Your task to perform on an android device: toggle show notifications on the lock screen Image 0: 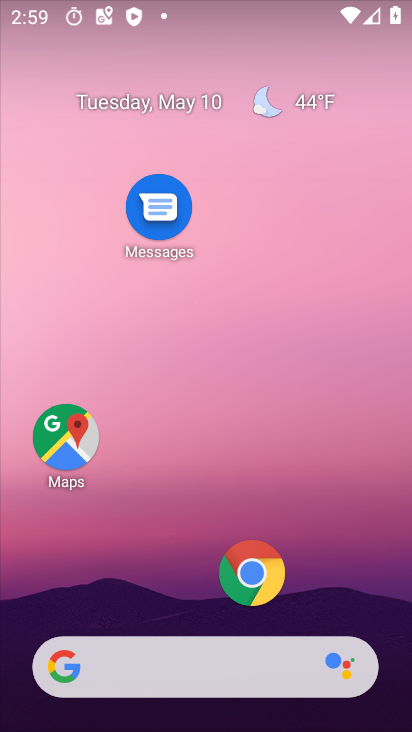
Step 0: drag from (185, 602) to (230, 105)
Your task to perform on an android device: toggle show notifications on the lock screen Image 1: 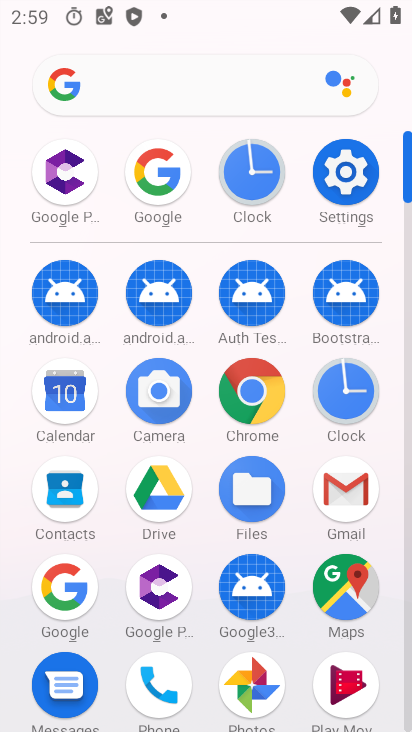
Step 1: click (351, 211)
Your task to perform on an android device: toggle show notifications on the lock screen Image 2: 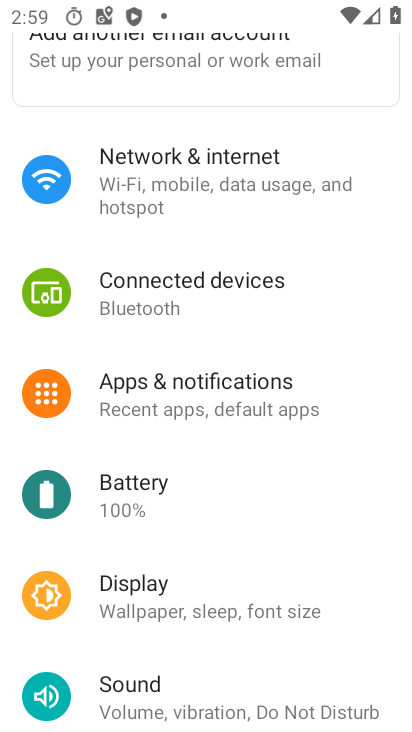
Step 2: click (204, 397)
Your task to perform on an android device: toggle show notifications on the lock screen Image 3: 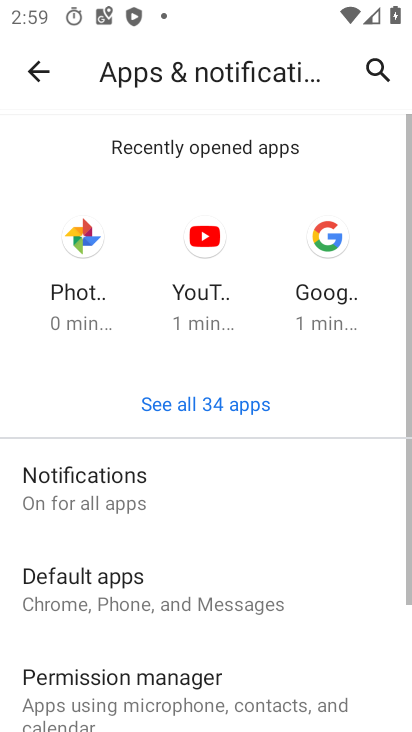
Step 3: drag from (172, 646) to (213, 415)
Your task to perform on an android device: toggle show notifications on the lock screen Image 4: 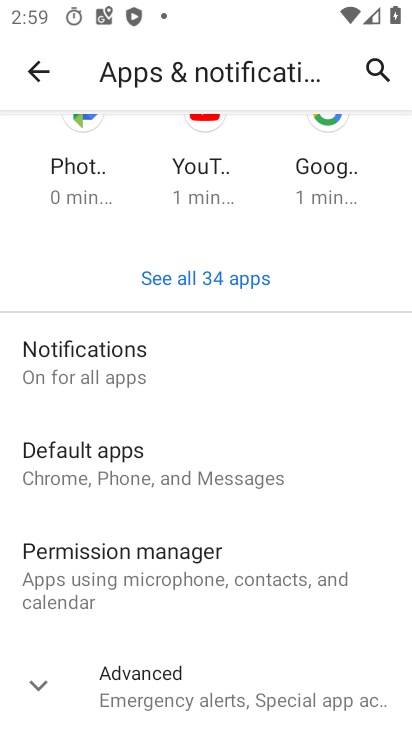
Step 4: drag from (225, 635) to (254, 457)
Your task to perform on an android device: toggle show notifications on the lock screen Image 5: 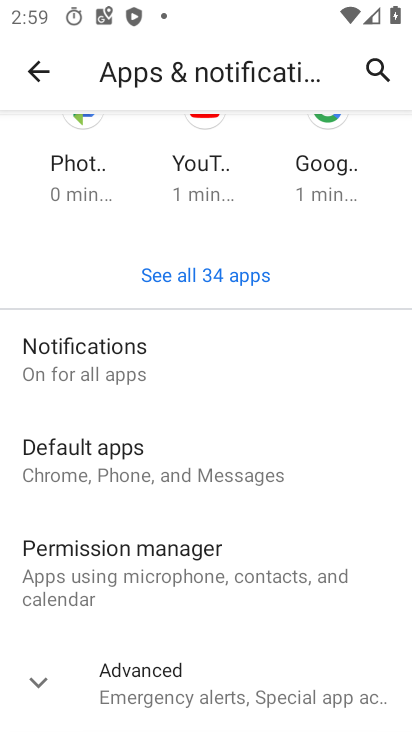
Step 5: click (145, 668)
Your task to perform on an android device: toggle show notifications on the lock screen Image 6: 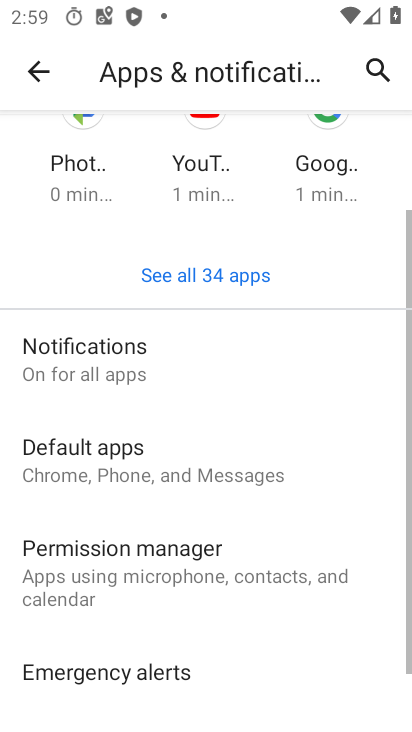
Step 6: drag from (163, 653) to (224, 453)
Your task to perform on an android device: toggle show notifications on the lock screen Image 7: 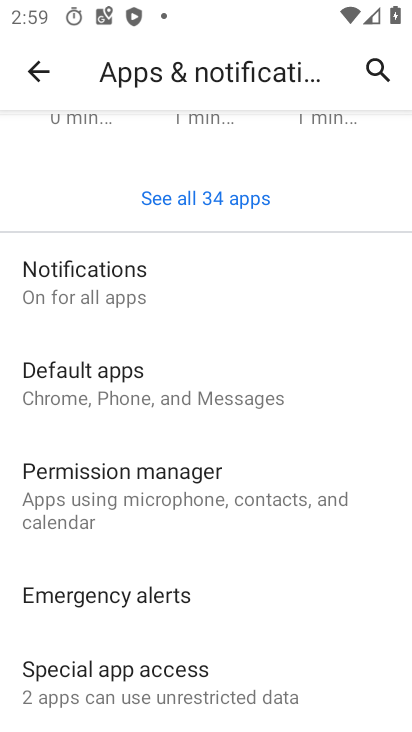
Step 7: drag from (204, 619) to (243, 439)
Your task to perform on an android device: toggle show notifications on the lock screen Image 8: 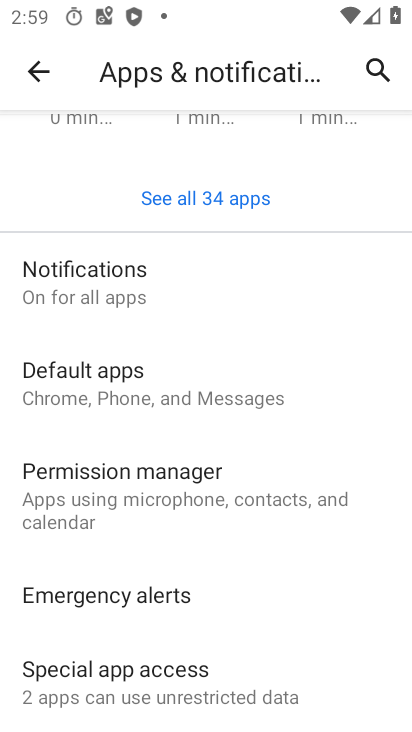
Step 8: click (109, 296)
Your task to perform on an android device: toggle show notifications on the lock screen Image 9: 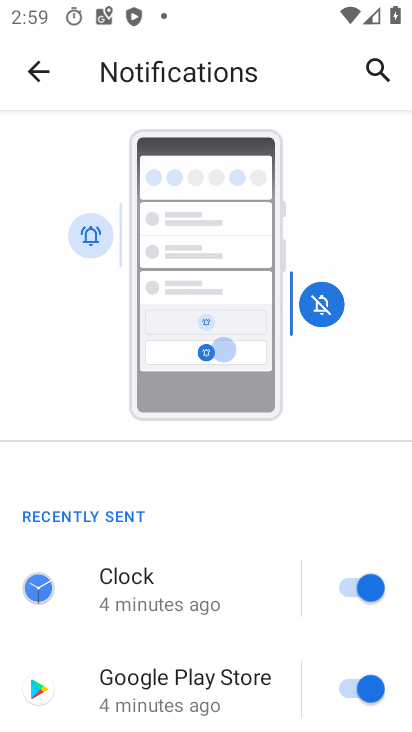
Step 9: drag from (191, 635) to (228, 374)
Your task to perform on an android device: toggle show notifications on the lock screen Image 10: 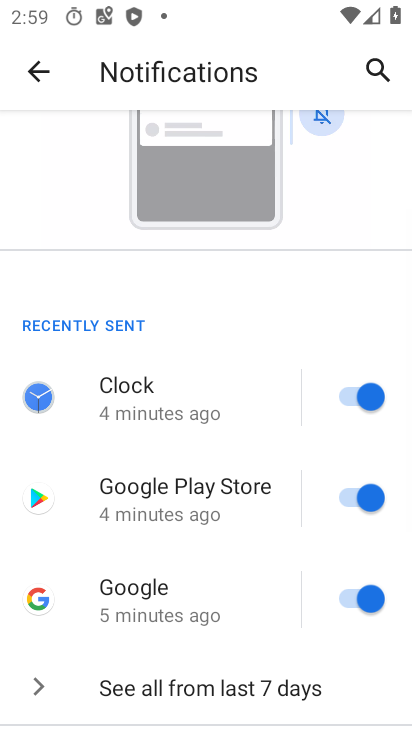
Step 10: drag from (199, 662) to (211, 397)
Your task to perform on an android device: toggle show notifications on the lock screen Image 11: 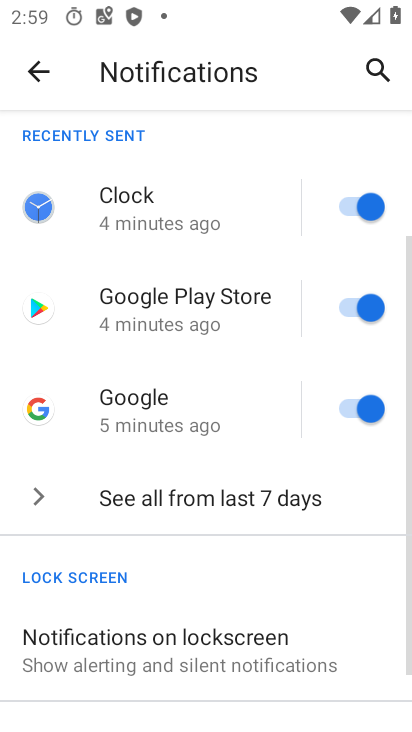
Step 11: click (205, 646)
Your task to perform on an android device: toggle show notifications on the lock screen Image 12: 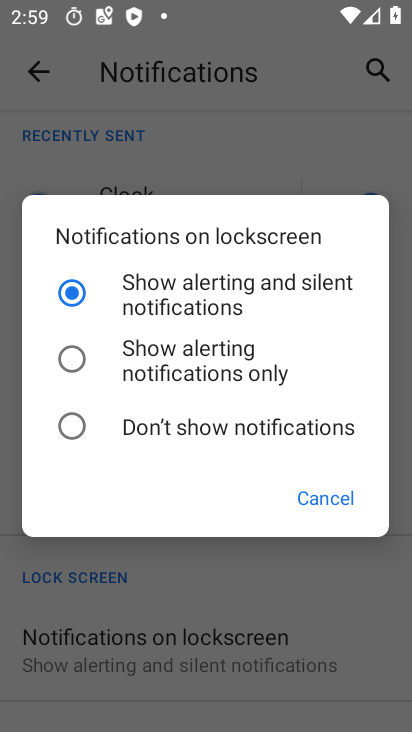
Step 12: click (150, 432)
Your task to perform on an android device: toggle show notifications on the lock screen Image 13: 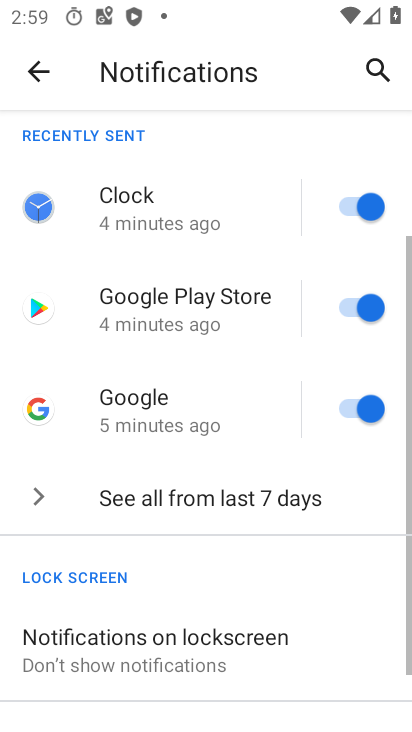
Step 13: task complete